Your task to perform on an android device: Search for pizza restaurants on Maps Image 0: 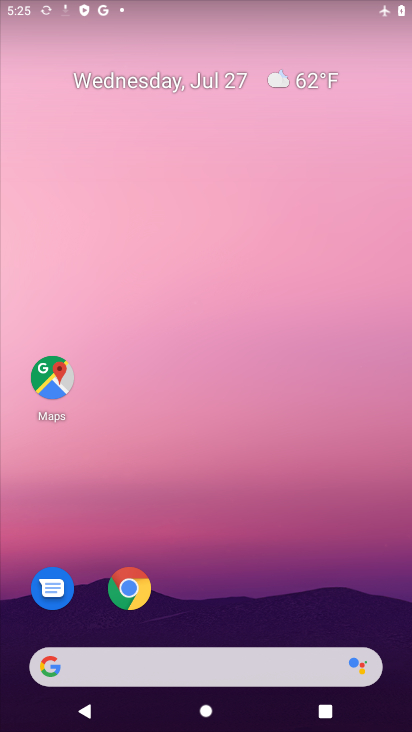
Step 0: click (50, 374)
Your task to perform on an android device: Search for pizza restaurants on Maps Image 1: 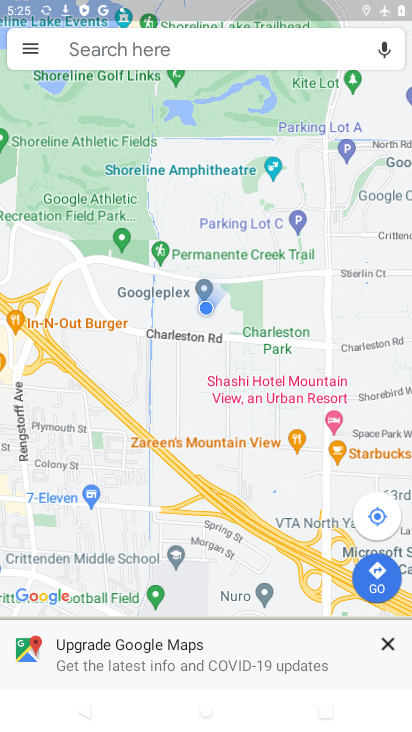
Step 1: click (132, 36)
Your task to perform on an android device: Search for pizza restaurants on Maps Image 2: 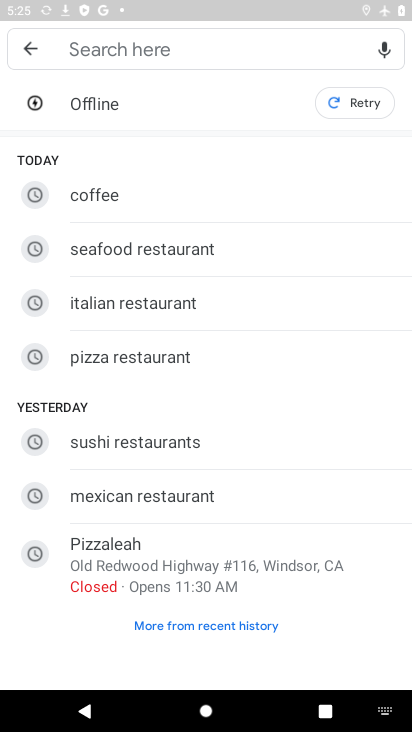
Step 2: click (153, 362)
Your task to perform on an android device: Search for pizza restaurants on Maps Image 3: 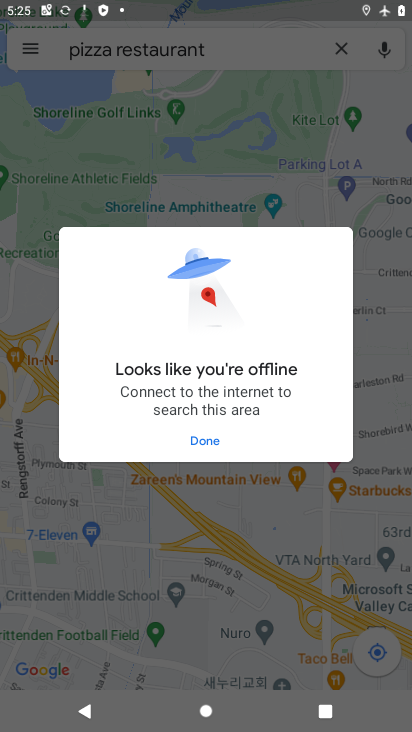
Step 3: press back button
Your task to perform on an android device: Search for pizza restaurants on Maps Image 4: 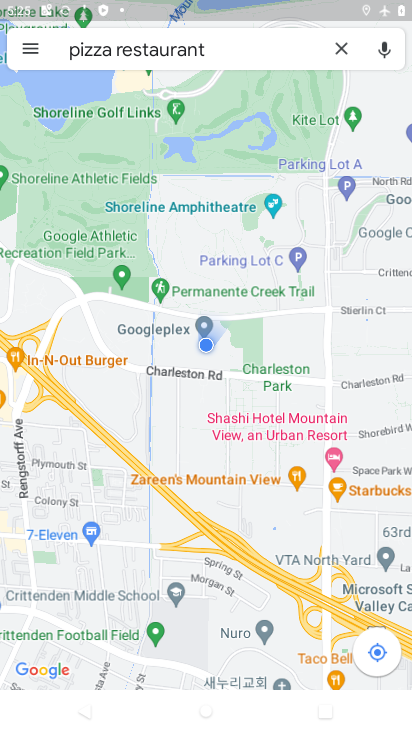
Step 4: press back button
Your task to perform on an android device: Search for pizza restaurants on Maps Image 5: 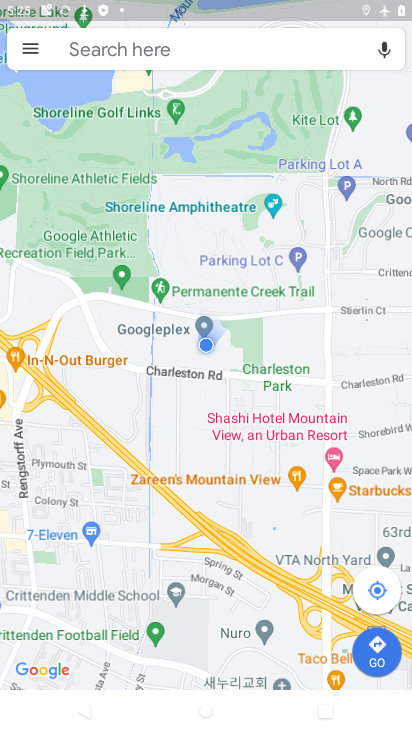
Step 5: press back button
Your task to perform on an android device: Search for pizza restaurants on Maps Image 6: 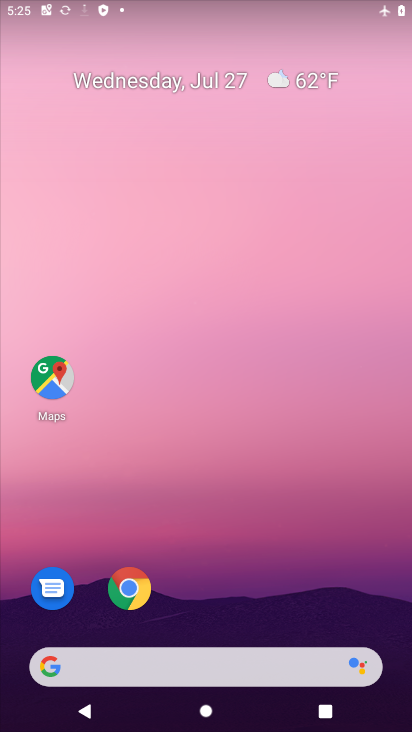
Step 6: click (203, 74)
Your task to perform on an android device: Search for pizza restaurants on Maps Image 7: 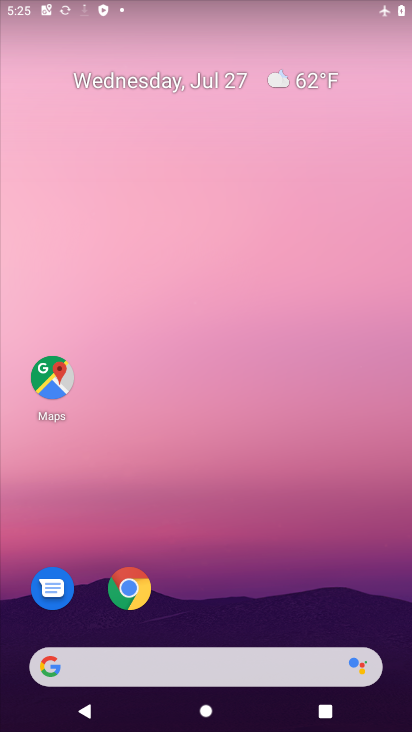
Step 7: drag from (161, 554) to (161, 110)
Your task to perform on an android device: Search for pizza restaurants on Maps Image 8: 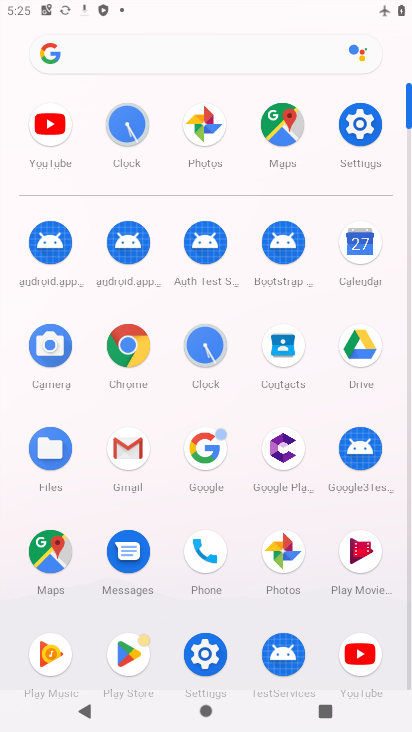
Step 8: click (359, 125)
Your task to perform on an android device: Search for pizza restaurants on Maps Image 9: 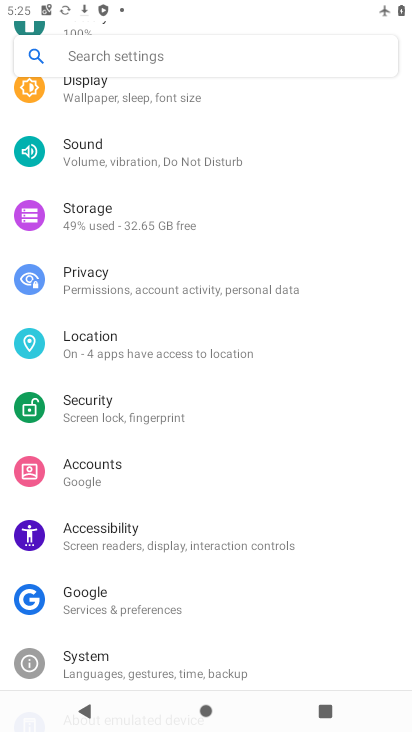
Step 9: drag from (166, 161) to (121, 533)
Your task to perform on an android device: Search for pizza restaurants on Maps Image 10: 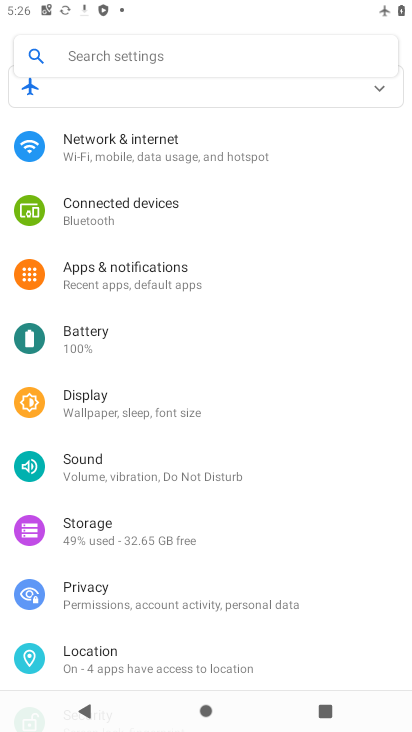
Step 10: click (381, 92)
Your task to perform on an android device: Search for pizza restaurants on Maps Image 11: 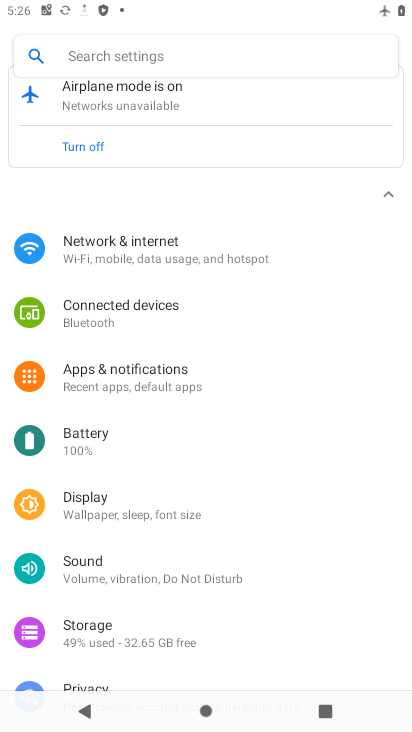
Step 11: click (74, 147)
Your task to perform on an android device: Search for pizza restaurants on Maps Image 12: 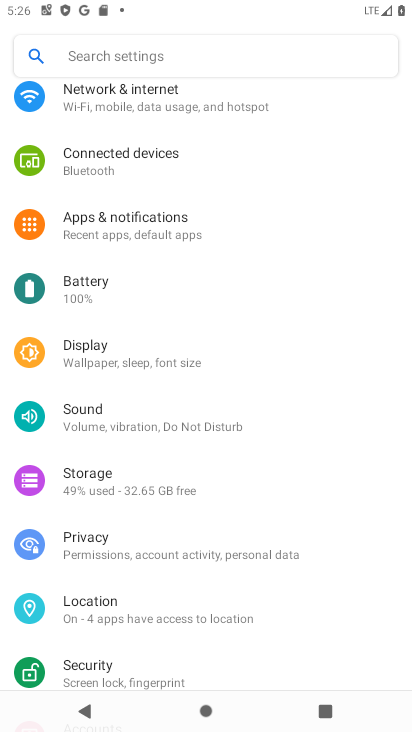
Step 12: press back button
Your task to perform on an android device: Search for pizza restaurants on Maps Image 13: 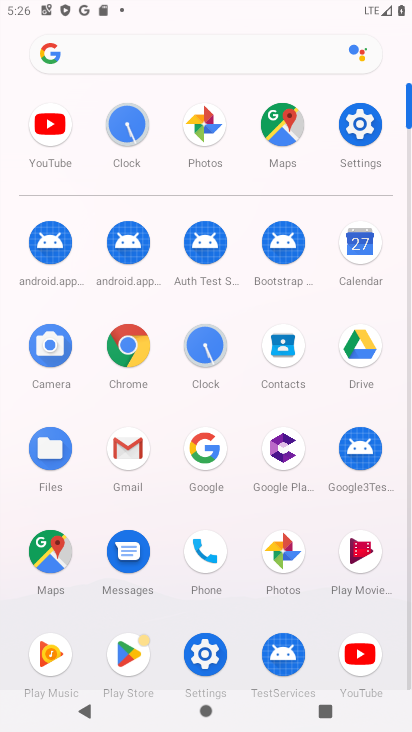
Step 13: click (280, 137)
Your task to perform on an android device: Search for pizza restaurants on Maps Image 14: 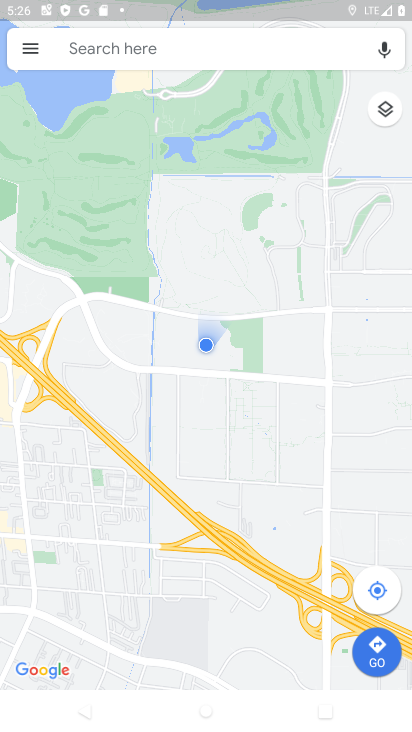
Step 14: click (163, 48)
Your task to perform on an android device: Search for pizza restaurants on Maps Image 15: 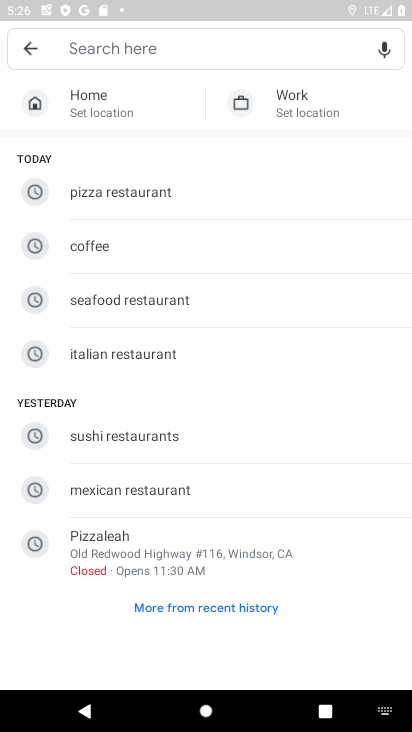
Step 15: click (95, 192)
Your task to perform on an android device: Search for pizza restaurants on Maps Image 16: 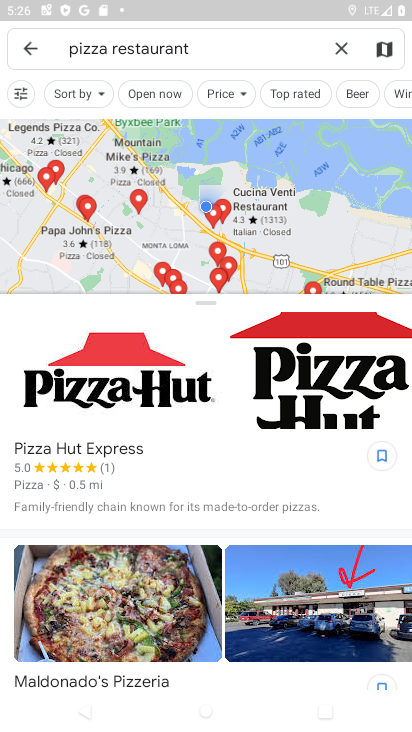
Step 16: task complete